Your task to perform on an android device: Empty the shopping cart on amazon. Add usb-a to the cart on amazon, then select checkout. Image 0: 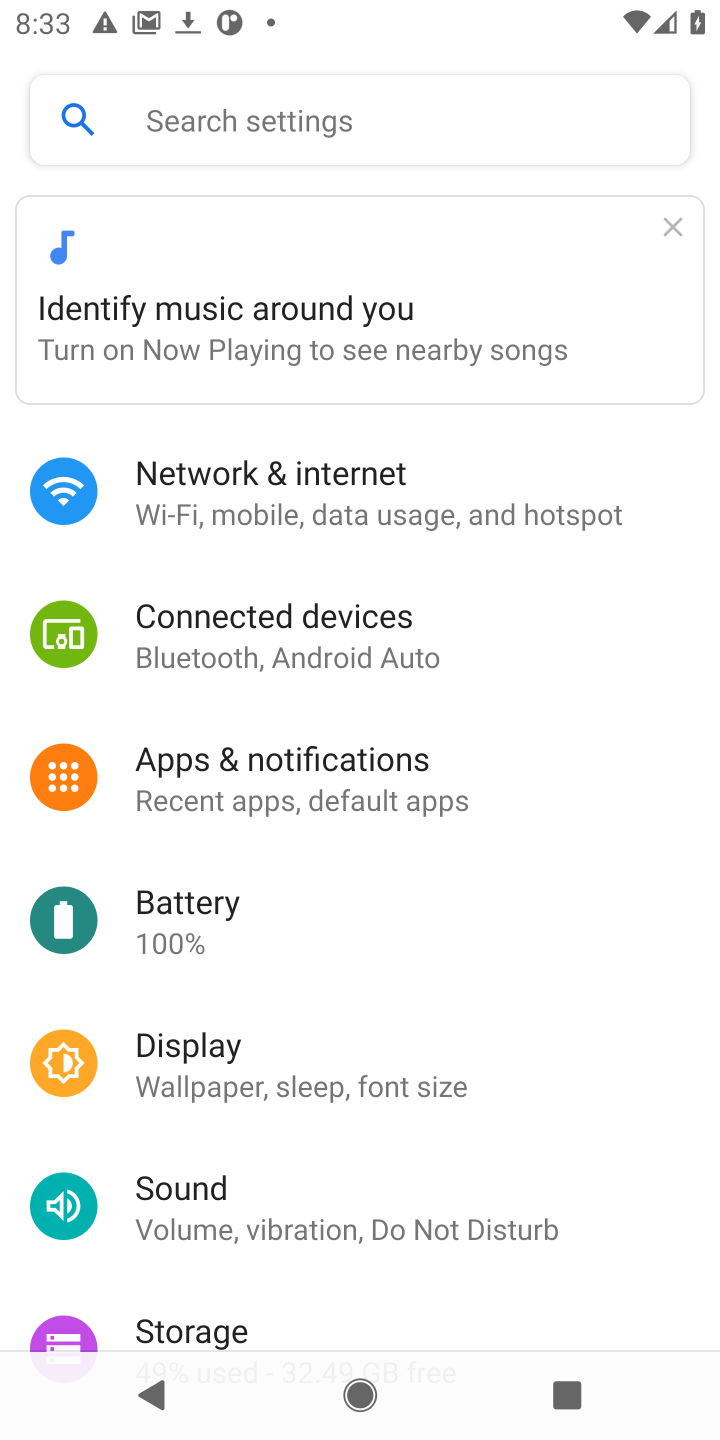
Step 0: press home button
Your task to perform on an android device: Empty the shopping cart on amazon. Add usb-a to the cart on amazon, then select checkout. Image 1: 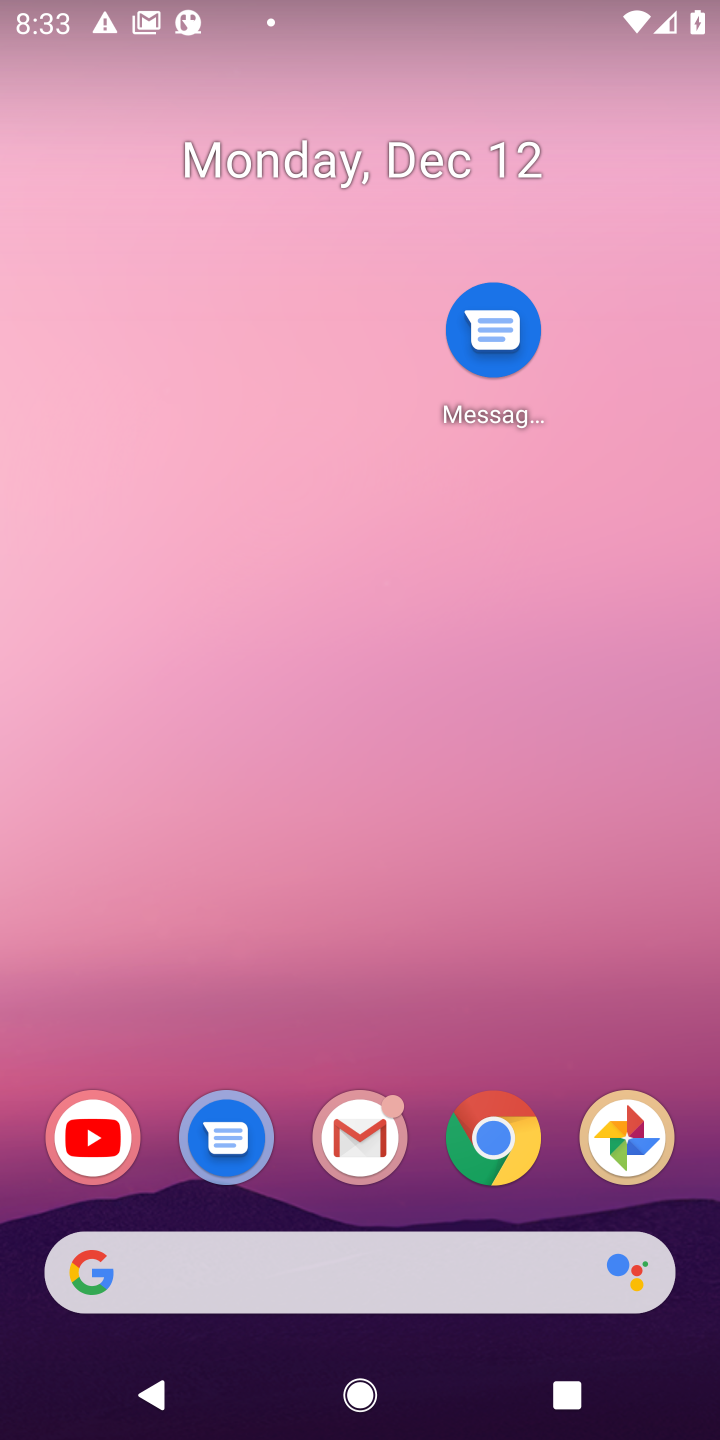
Step 1: drag from (395, 1206) to (477, 412)
Your task to perform on an android device: Empty the shopping cart on amazon. Add usb-a to the cart on amazon, then select checkout. Image 2: 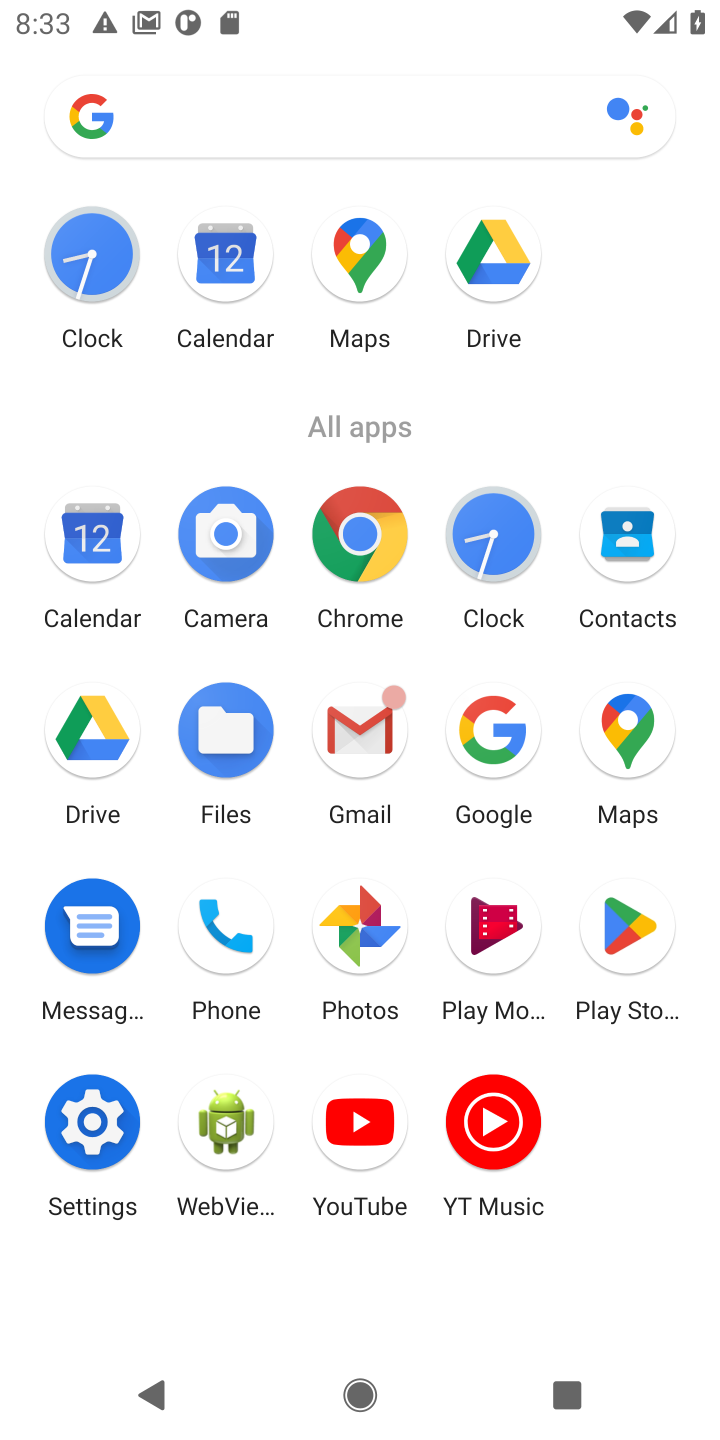
Step 2: click (467, 743)
Your task to perform on an android device: Empty the shopping cart on amazon. Add usb-a to the cart on amazon, then select checkout. Image 3: 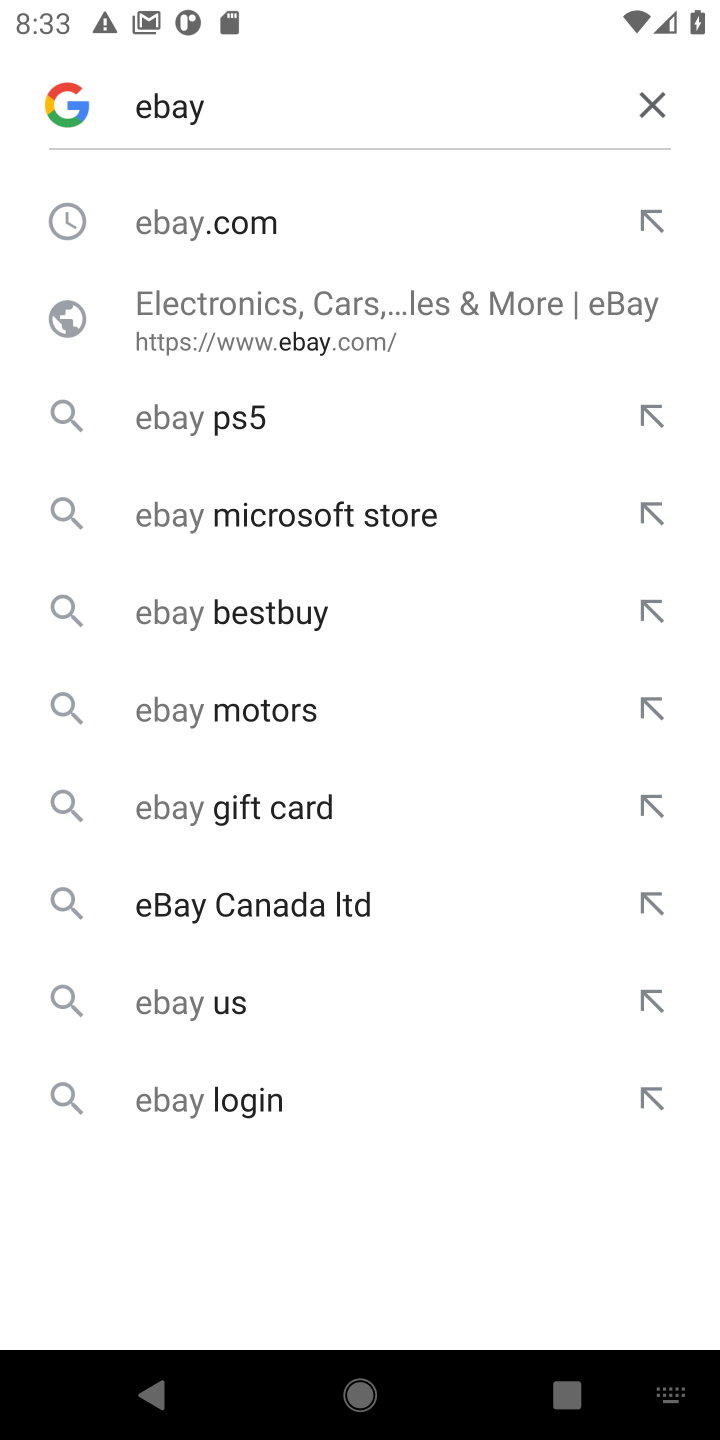
Step 3: click (644, 111)
Your task to perform on an android device: Empty the shopping cart on amazon. Add usb-a to the cart on amazon, then select checkout. Image 4: 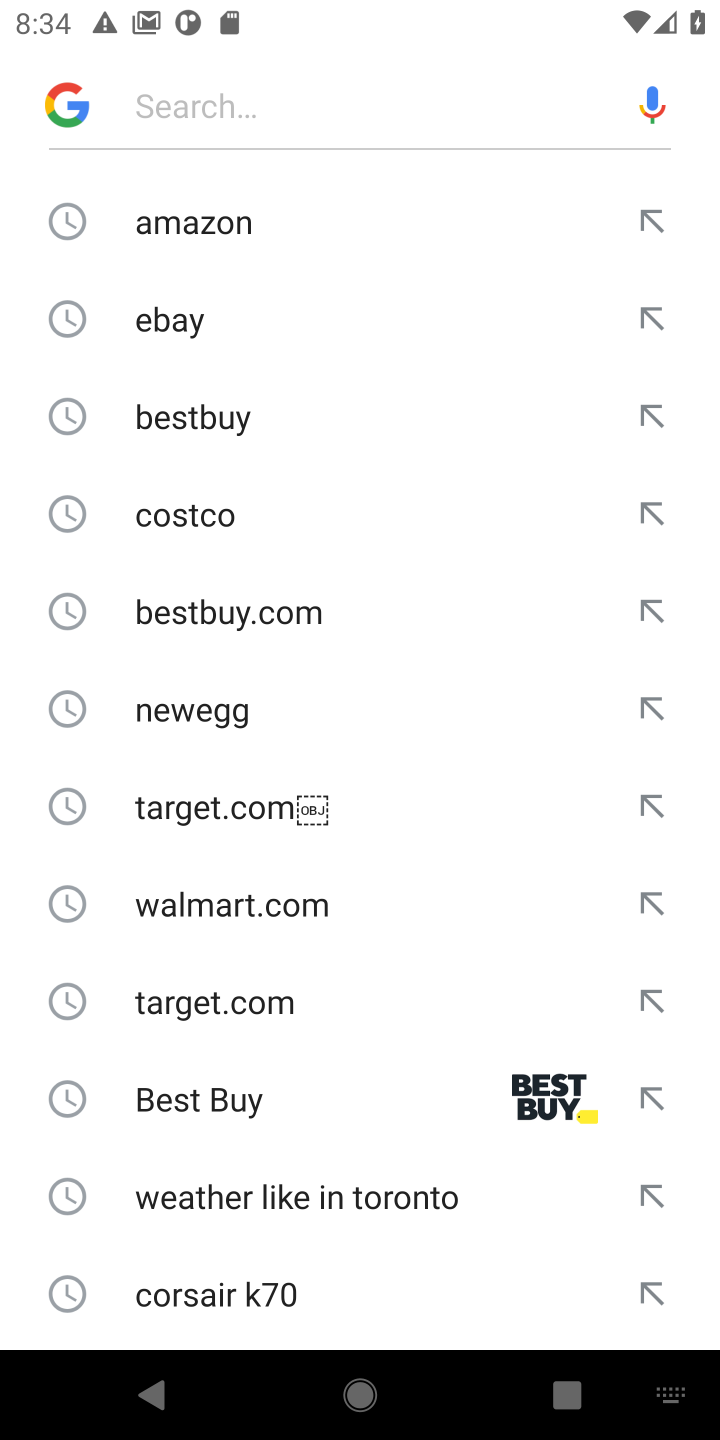
Step 4: click (206, 221)
Your task to perform on an android device: Empty the shopping cart on amazon. Add usb-a to the cart on amazon, then select checkout. Image 5: 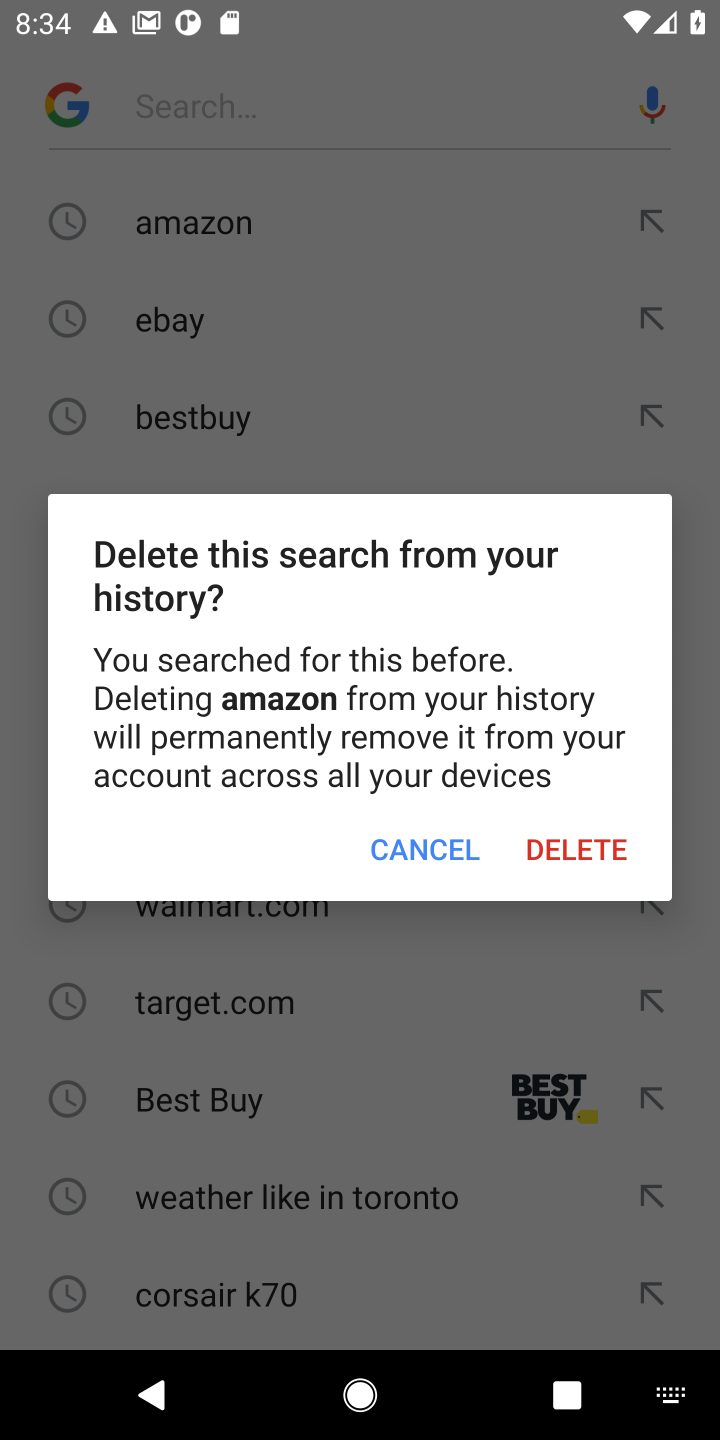
Step 5: click (431, 855)
Your task to perform on an android device: Empty the shopping cart on amazon. Add usb-a to the cart on amazon, then select checkout. Image 6: 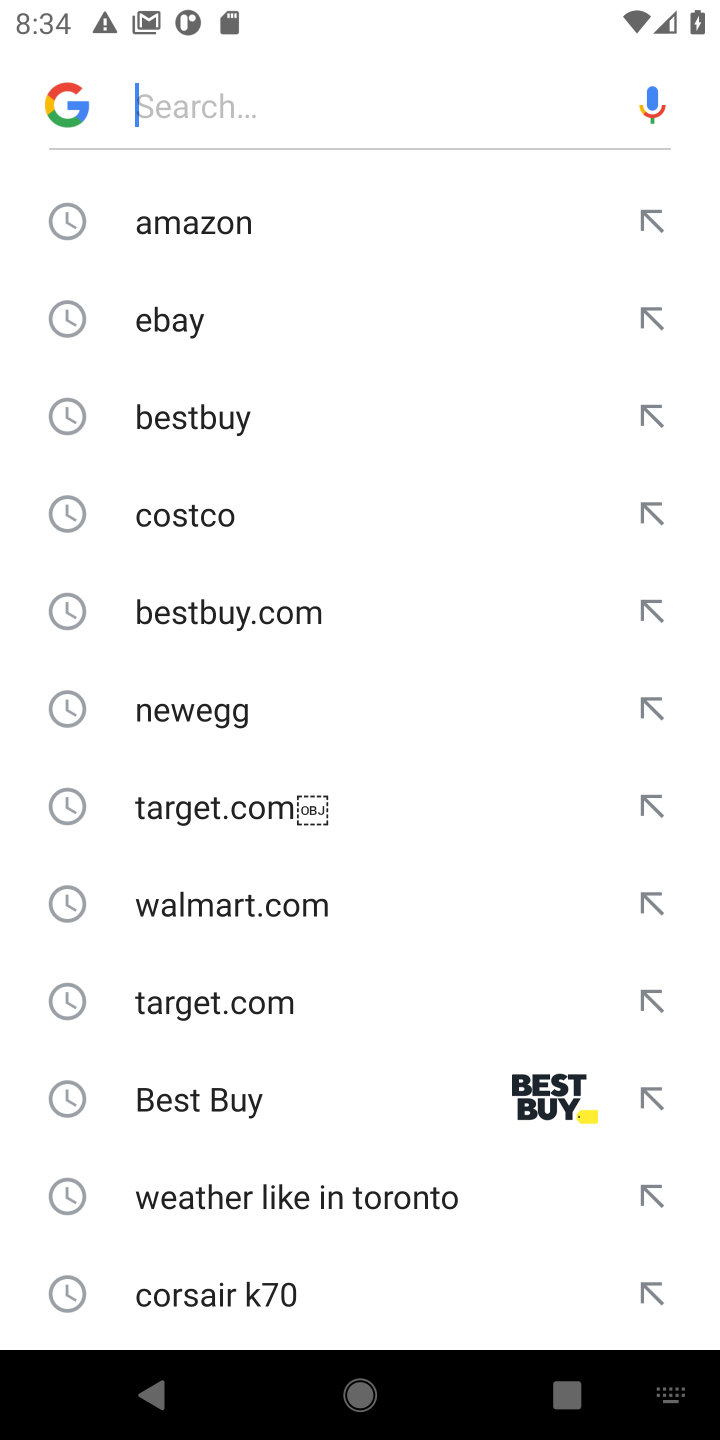
Step 6: click (184, 228)
Your task to perform on an android device: Empty the shopping cart on amazon. Add usb-a to the cart on amazon, then select checkout. Image 7: 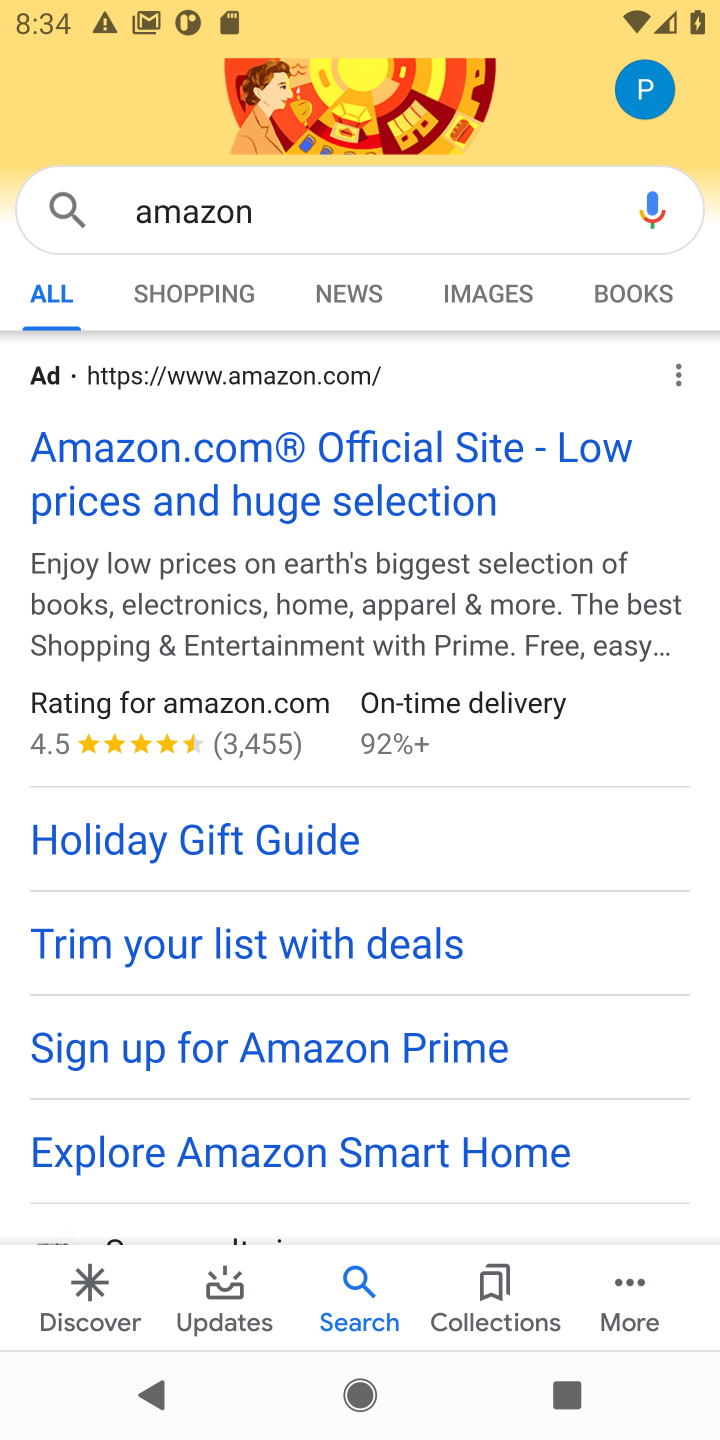
Step 7: click (251, 466)
Your task to perform on an android device: Empty the shopping cart on amazon. Add usb-a to the cart on amazon, then select checkout. Image 8: 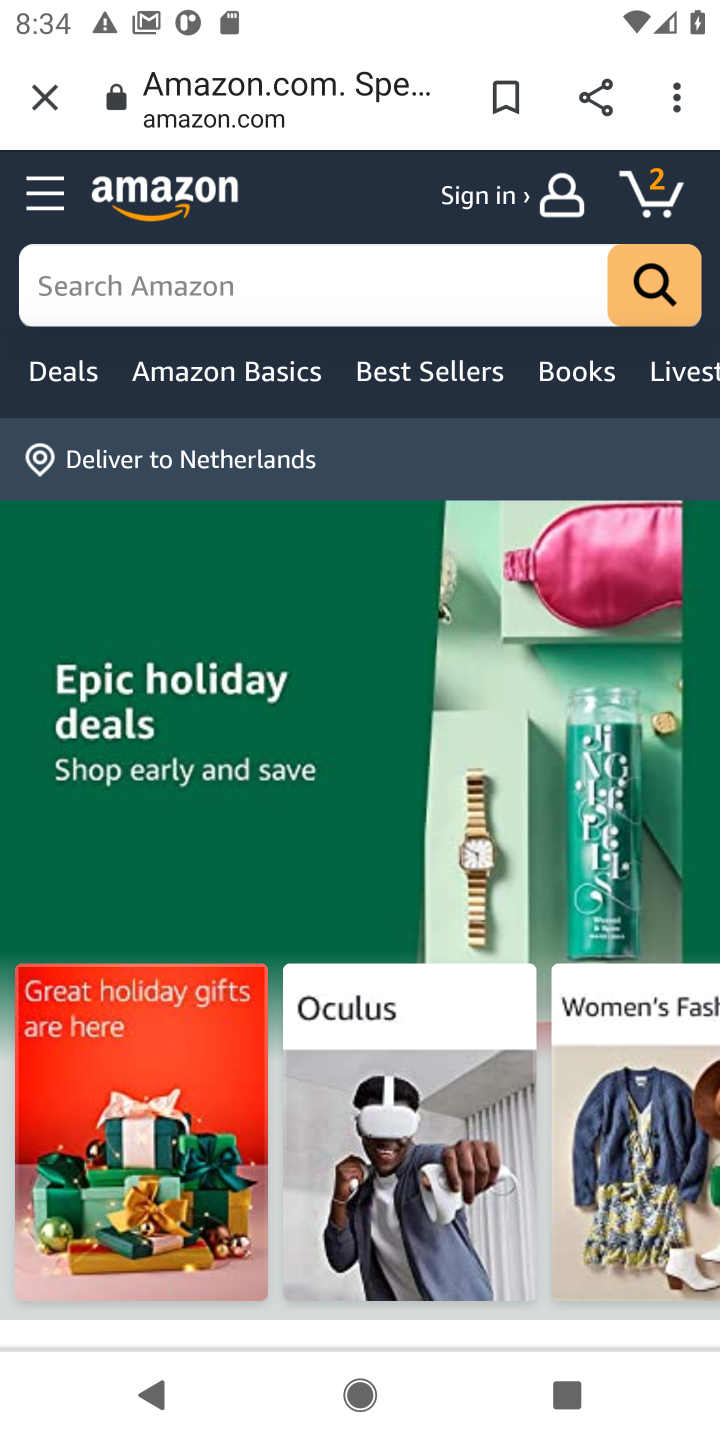
Step 8: click (285, 296)
Your task to perform on an android device: Empty the shopping cart on amazon. Add usb-a to the cart on amazon, then select checkout. Image 9: 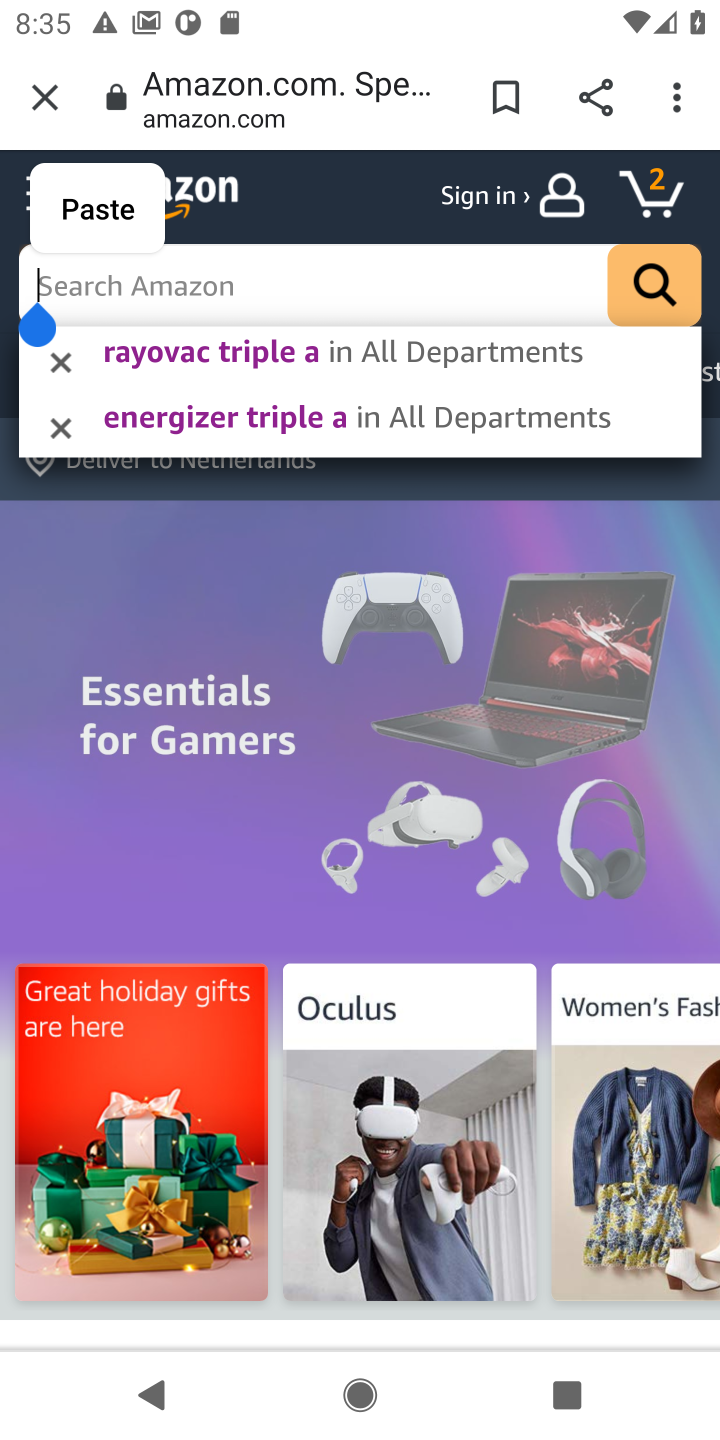
Step 9: type "usb-a"
Your task to perform on an android device: Empty the shopping cart on amazon. Add usb-a to the cart on amazon, then select checkout. Image 10: 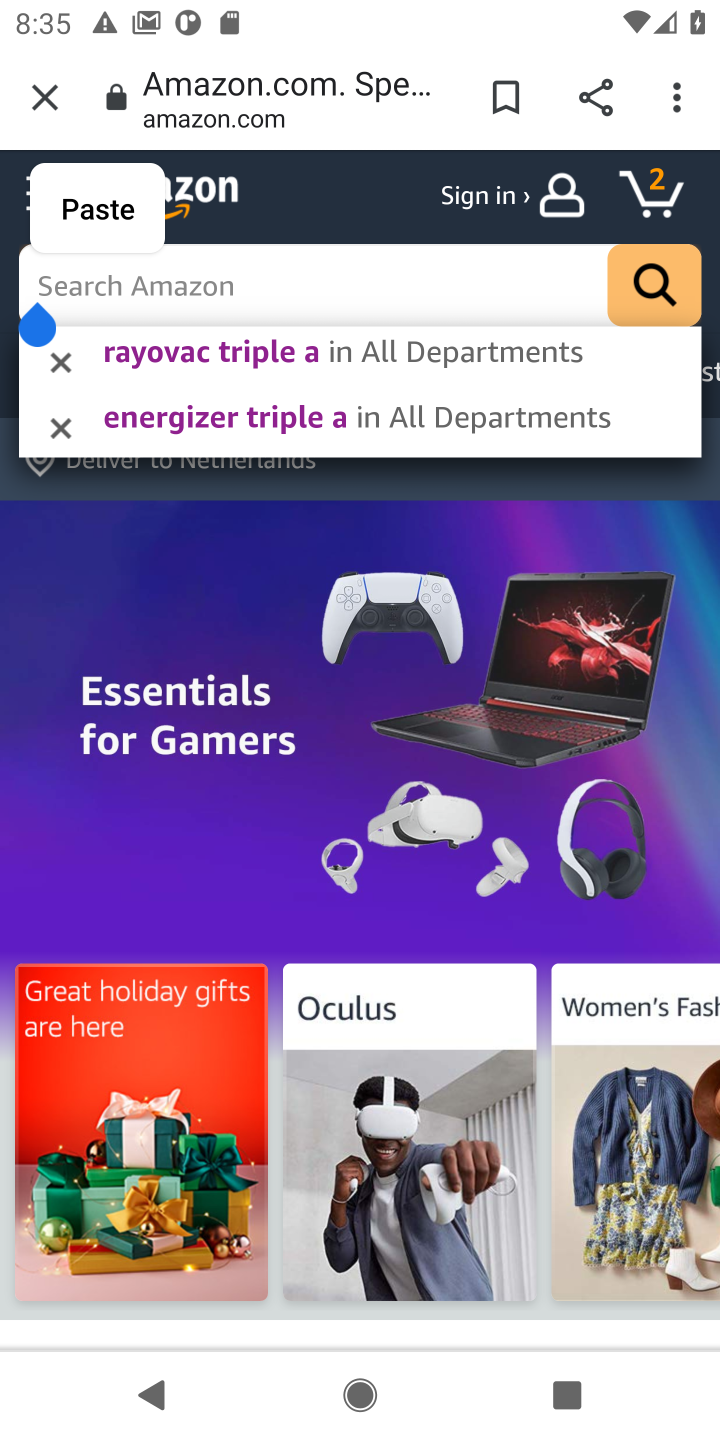
Step 10: click (633, 286)
Your task to perform on an android device: Empty the shopping cart on amazon. Add usb-a to the cart on amazon, then select checkout. Image 11: 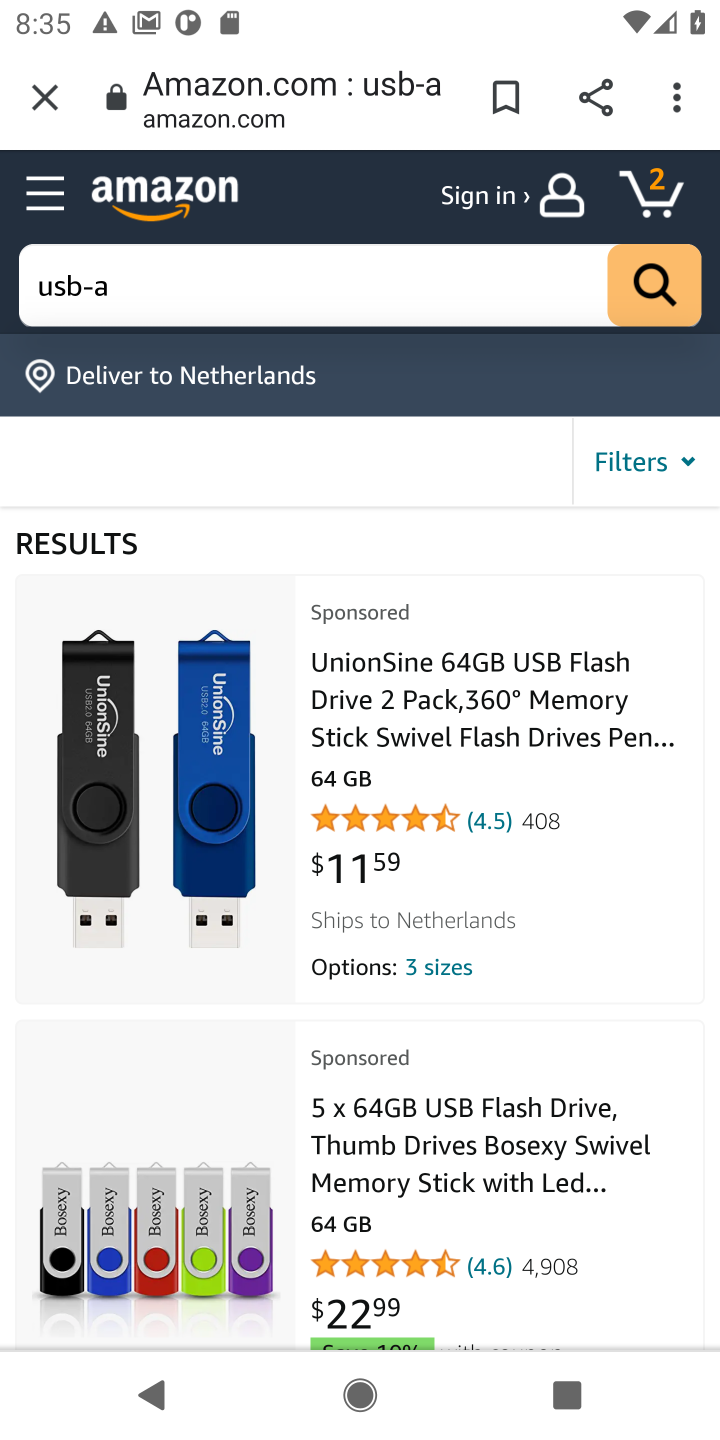
Step 11: click (375, 716)
Your task to perform on an android device: Empty the shopping cart on amazon. Add usb-a to the cart on amazon, then select checkout. Image 12: 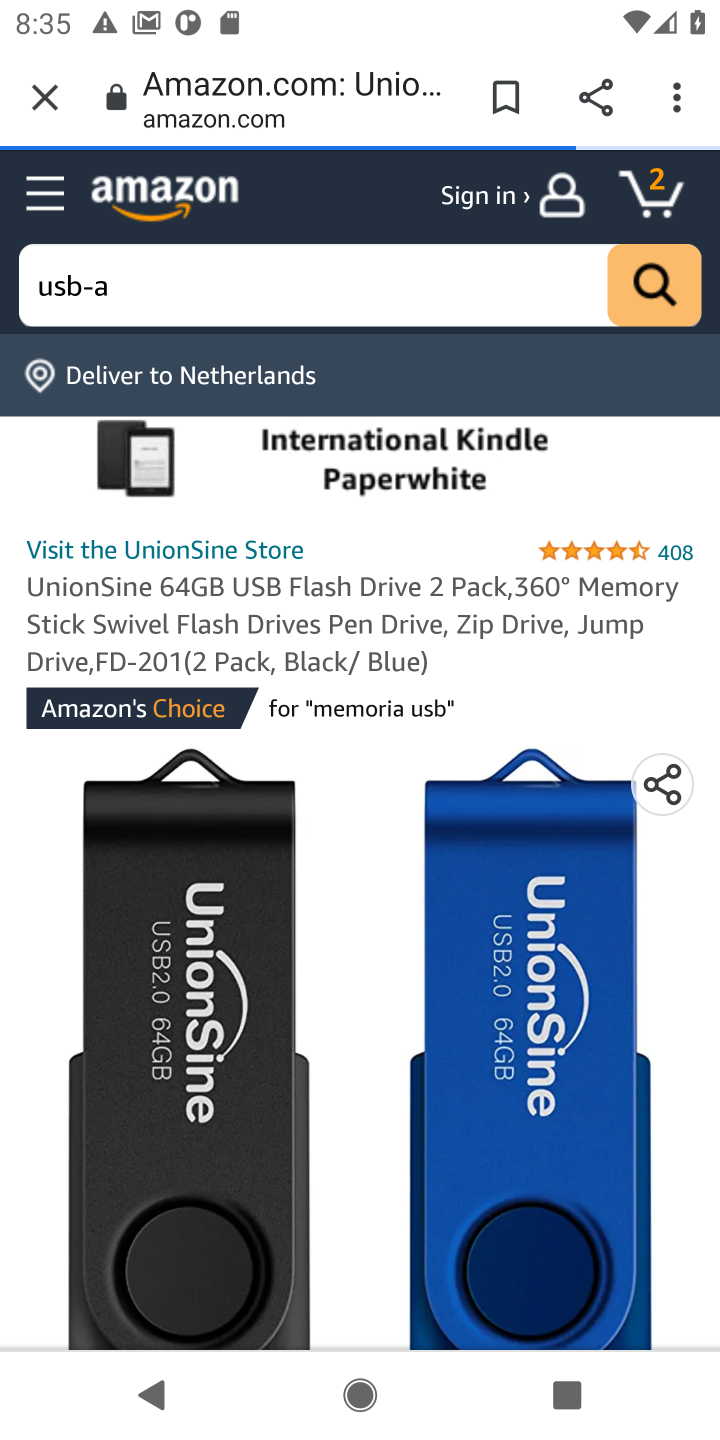
Step 12: drag from (378, 1111) to (393, 467)
Your task to perform on an android device: Empty the shopping cart on amazon. Add usb-a to the cart on amazon, then select checkout. Image 13: 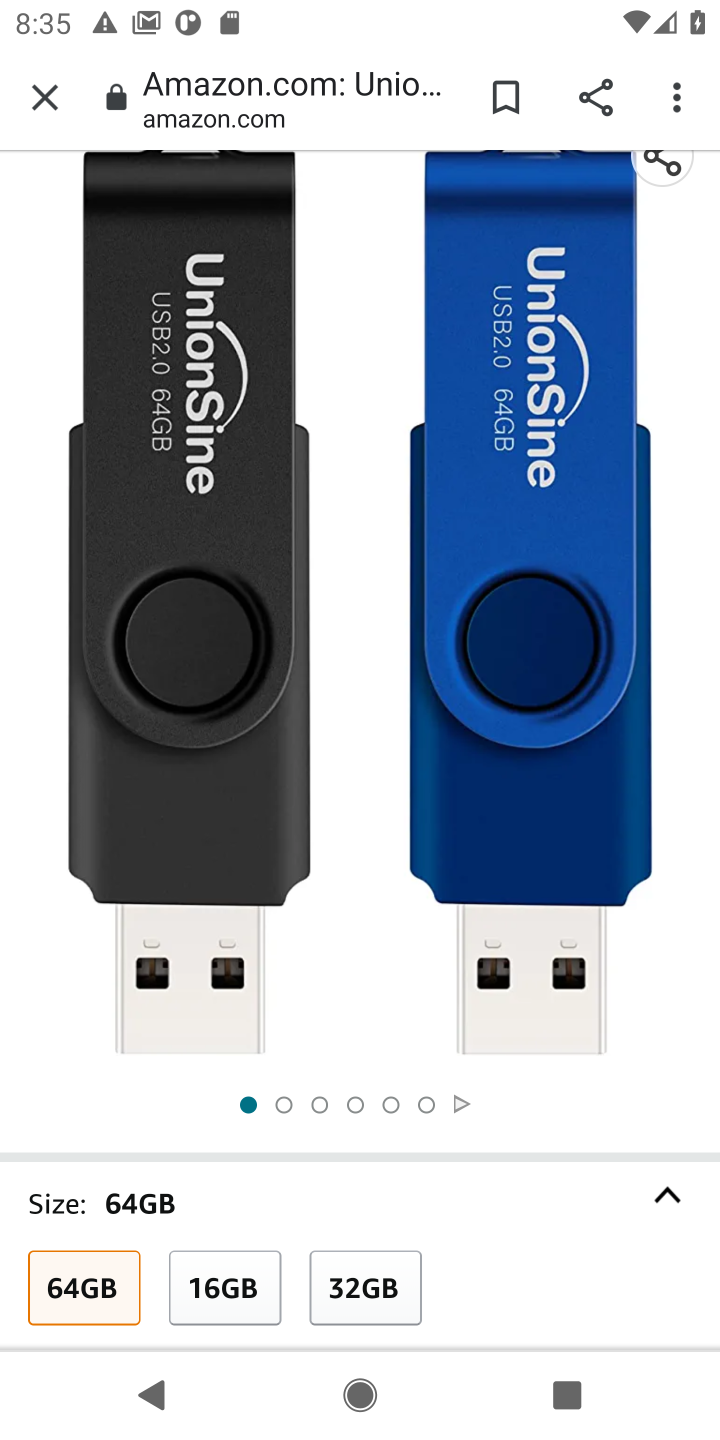
Step 13: drag from (366, 998) to (340, 490)
Your task to perform on an android device: Empty the shopping cart on amazon. Add usb-a to the cart on amazon, then select checkout. Image 14: 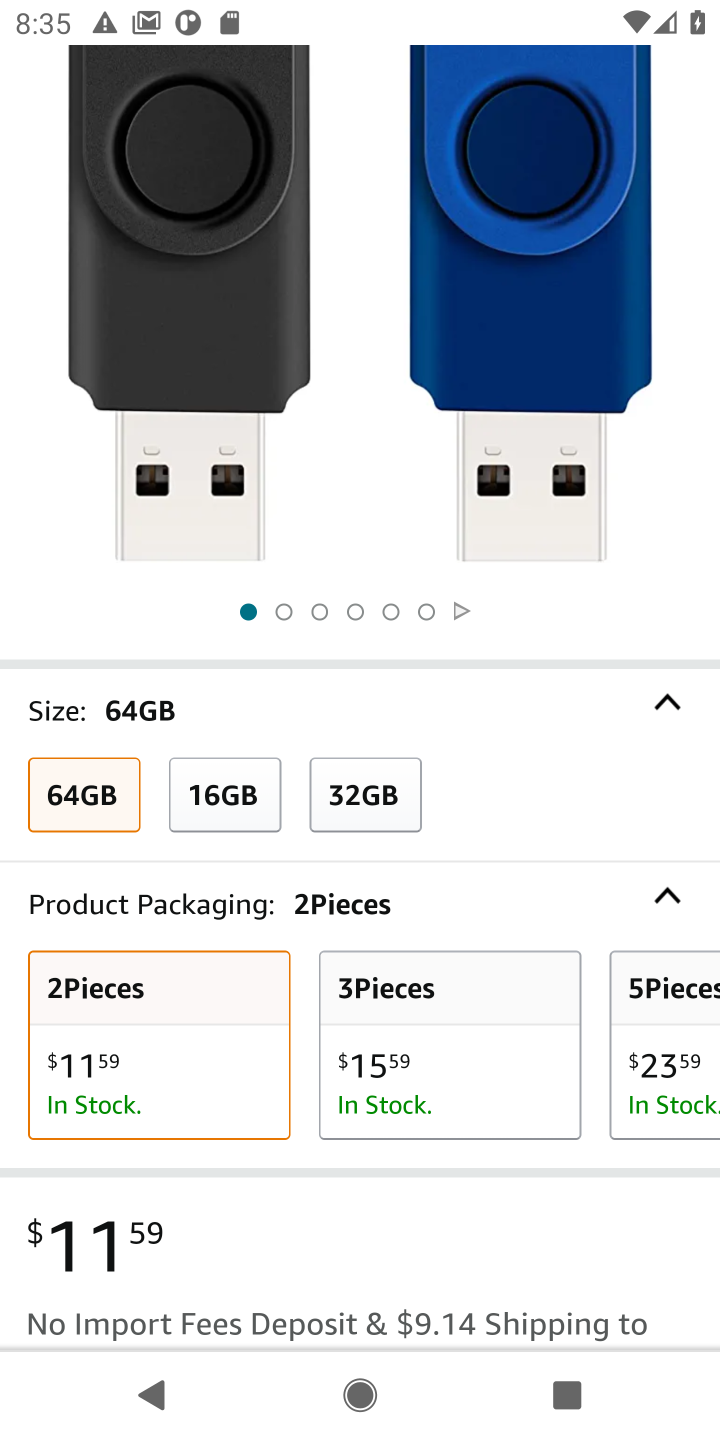
Step 14: drag from (403, 722) to (403, 498)
Your task to perform on an android device: Empty the shopping cart on amazon. Add usb-a to the cart on amazon, then select checkout. Image 15: 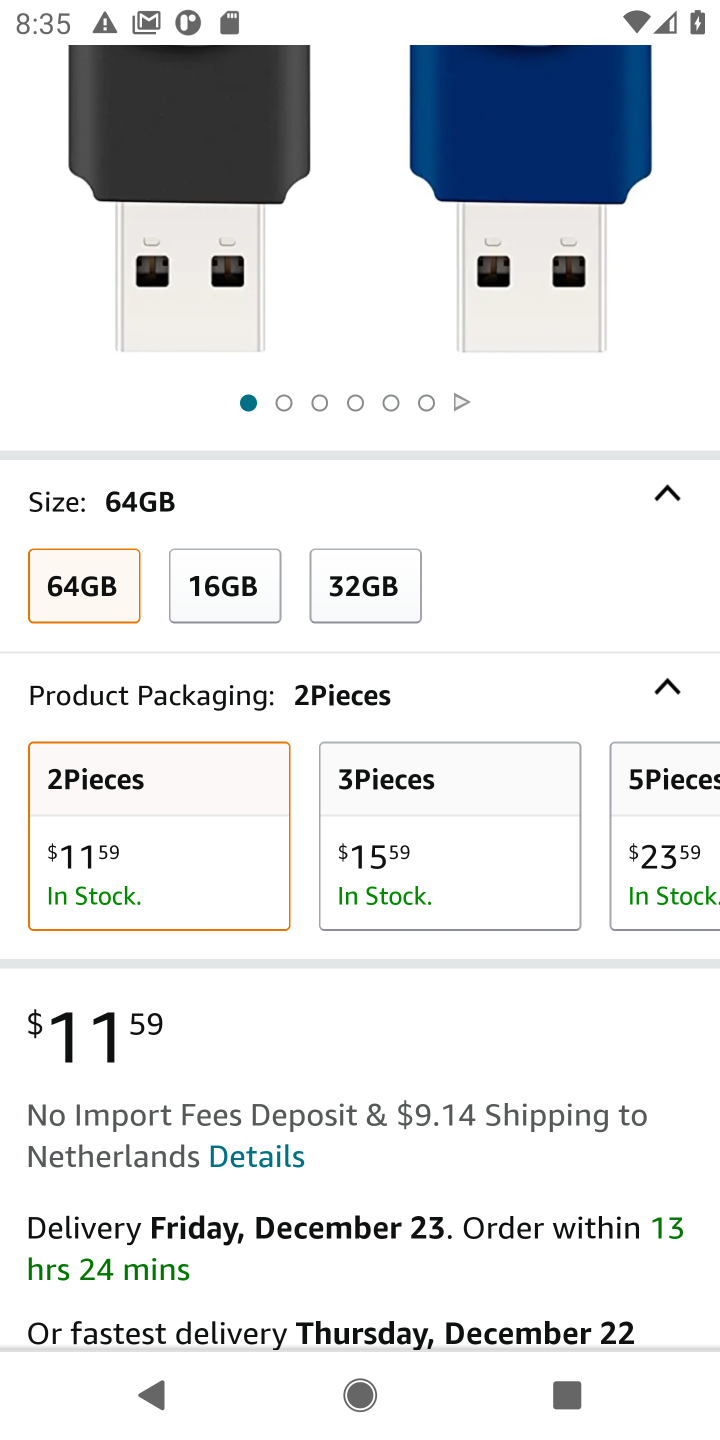
Step 15: drag from (327, 1083) to (336, 568)
Your task to perform on an android device: Empty the shopping cart on amazon. Add usb-a to the cart on amazon, then select checkout. Image 16: 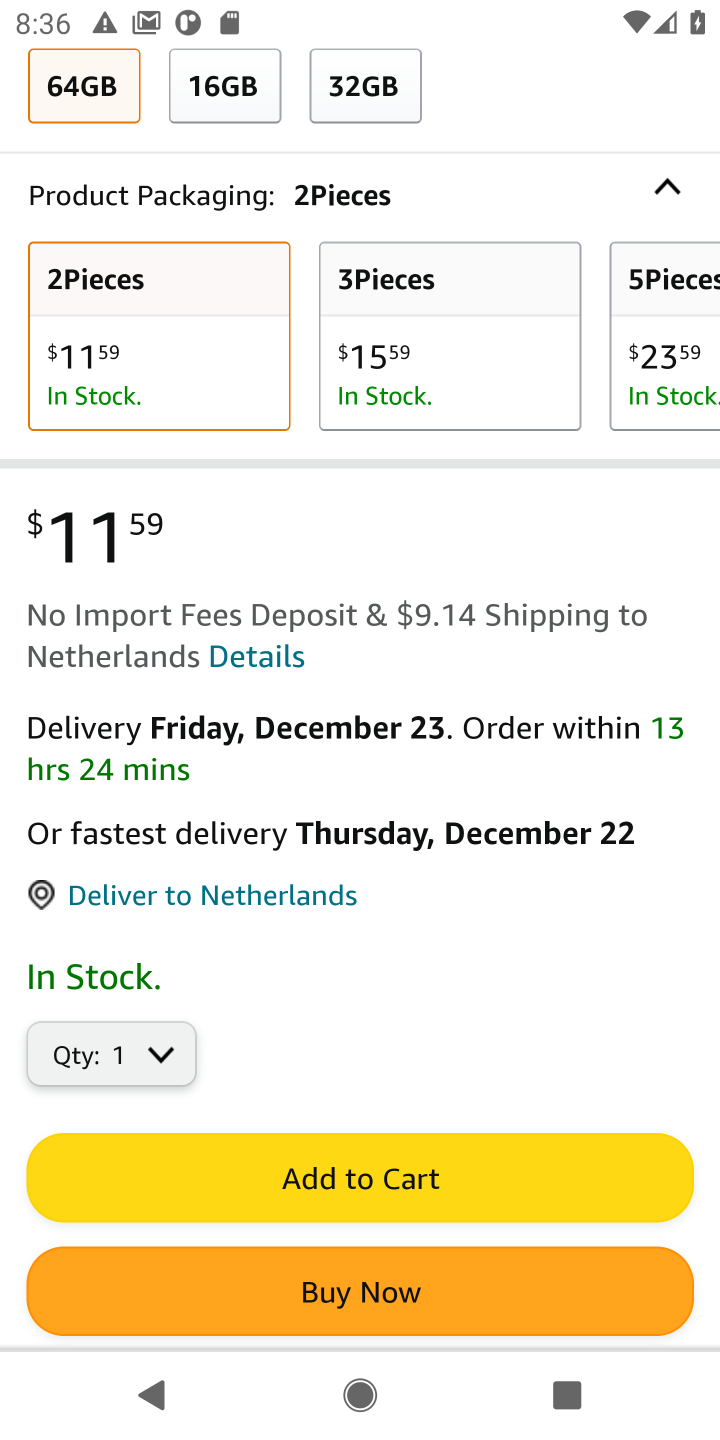
Step 16: click (316, 1166)
Your task to perform on an android device: Empty the shopping cart on amazon. Add usb-a to the cart on amazon, then select checkout. Image 17: 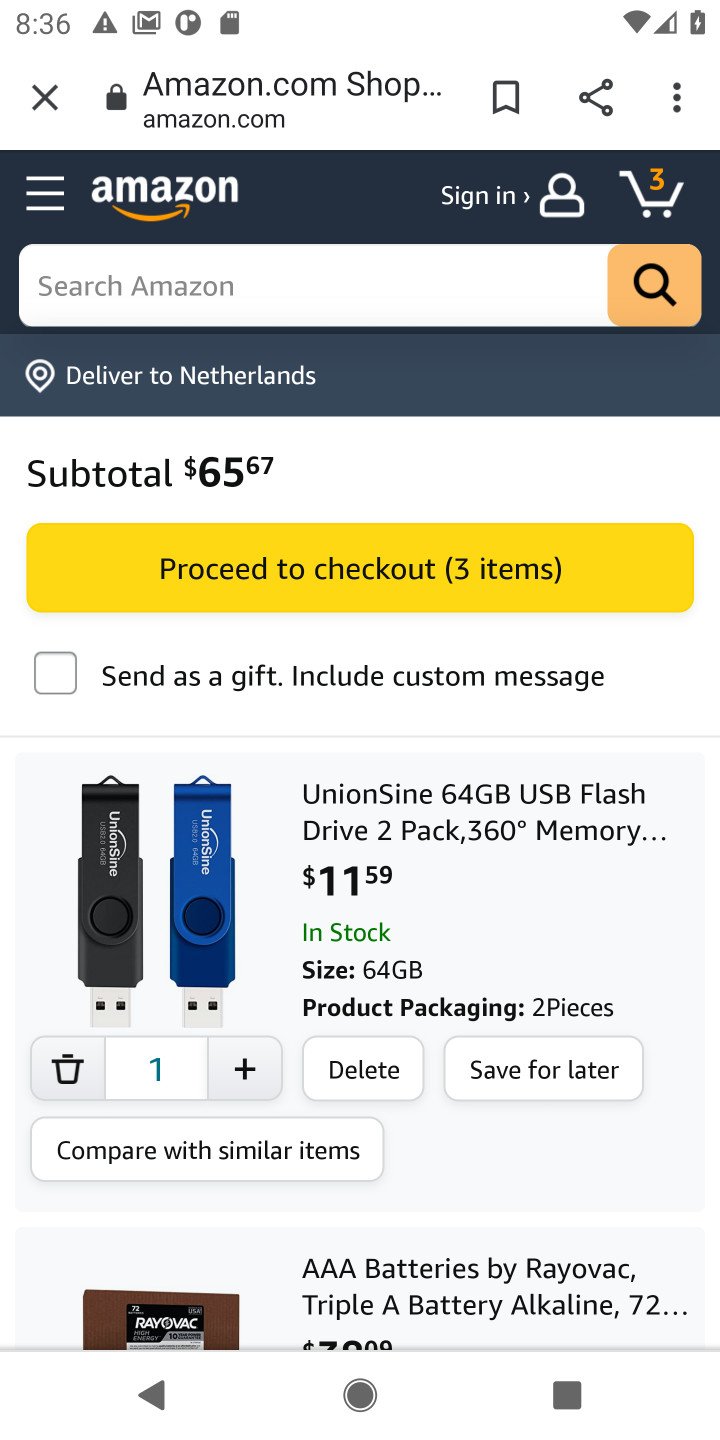
Step 17: click (650, 185)
Your task to perform on an android device: Empty the shopping cart on amazon. Add usb-a to the cart on amazon, then select checkout. Image 18: 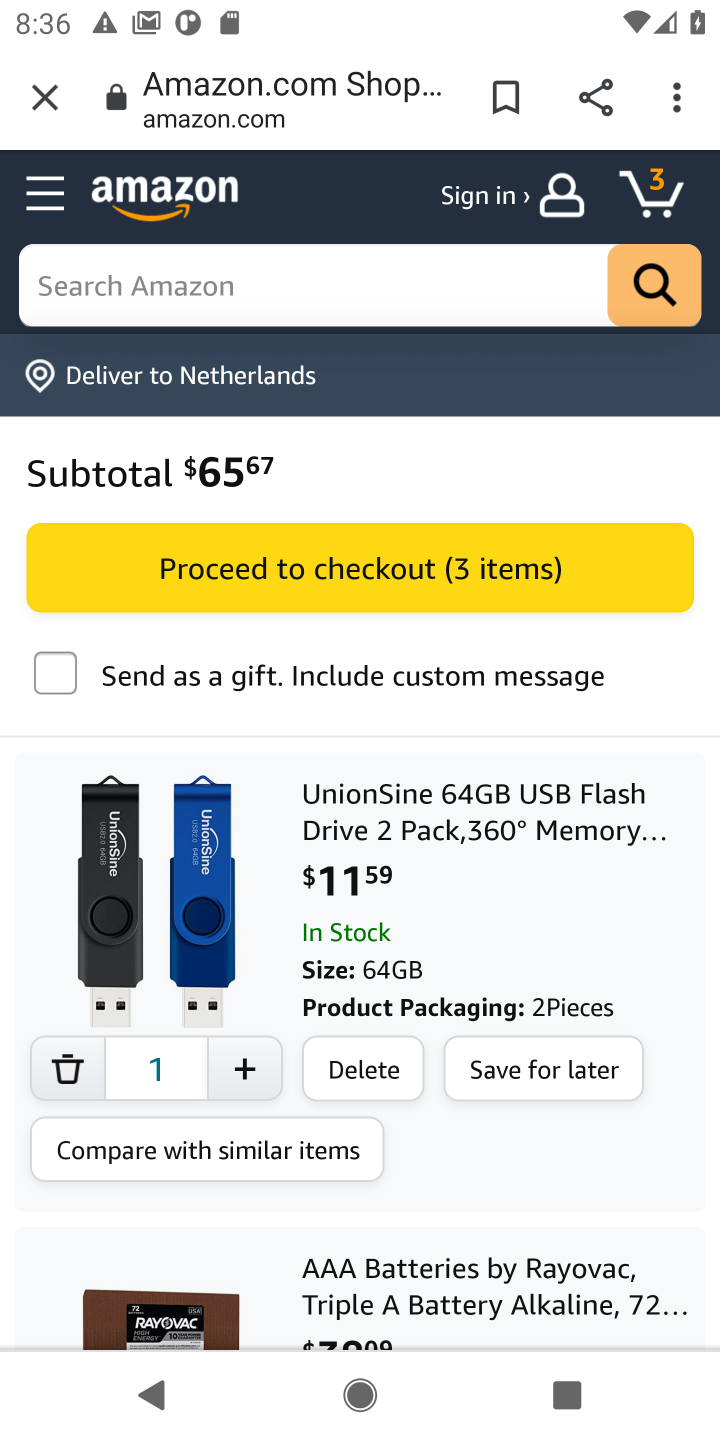
Step 18: click (375, 570)
Your task to perform on an android device: Empty the shopping cart on amazon. Add usb-a to the cart on amazon, then select checkout. Image 19: 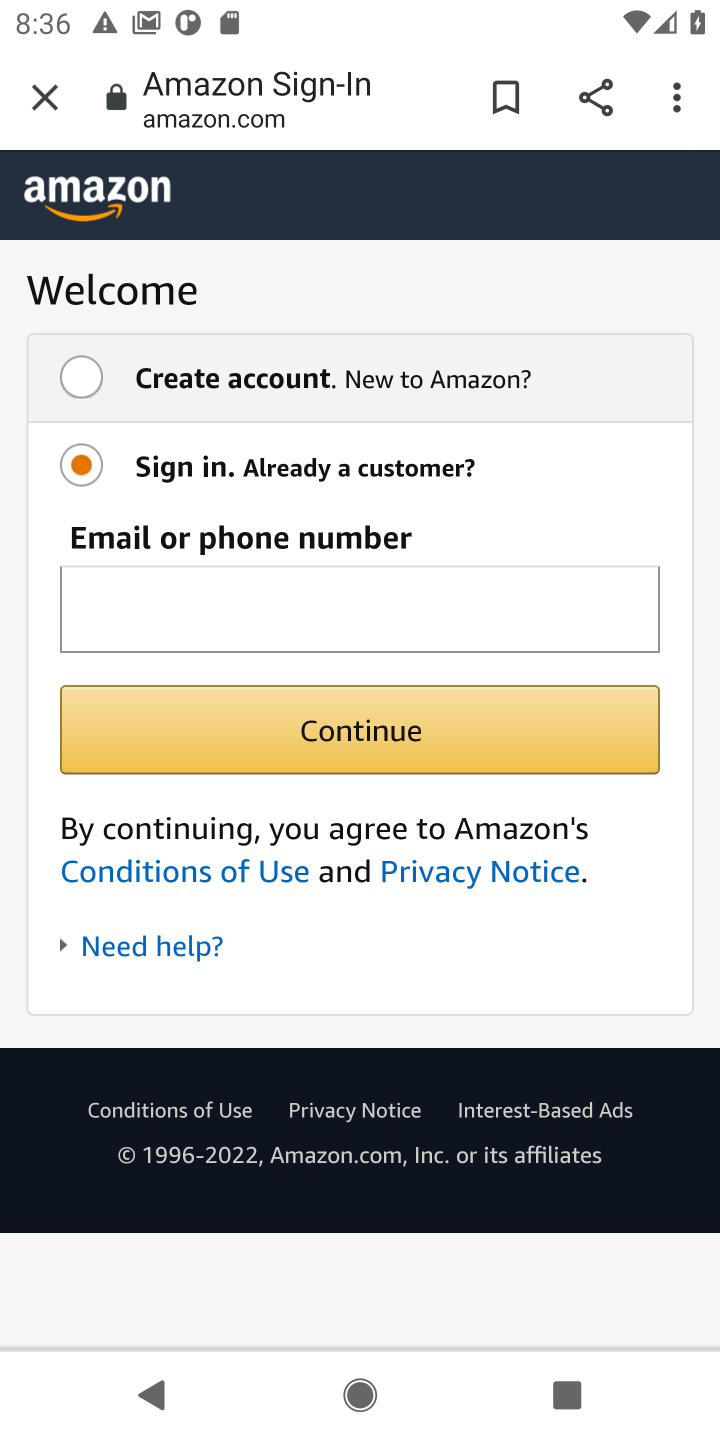
Step 19: task complete